Your task to perform on an android device: turn on notifications settings in the gmail app Image 0: 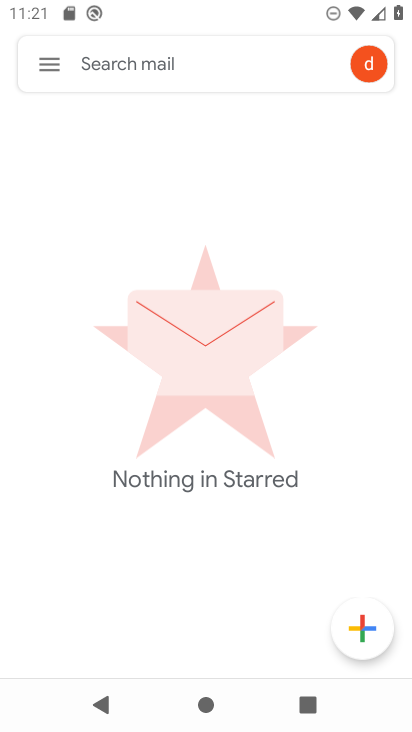
Step 0: click (51, 60)
Your task to perform on an android device: turn on notifications settings in the gmail app Image 1: 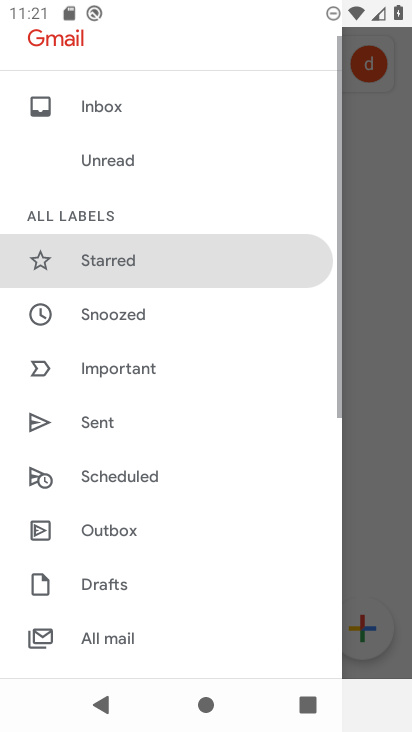
Step 1: drag from (186, 488) to (276, 104)
Your task to perform on an android device: turn on notifications settings in the gmail app Image 2: 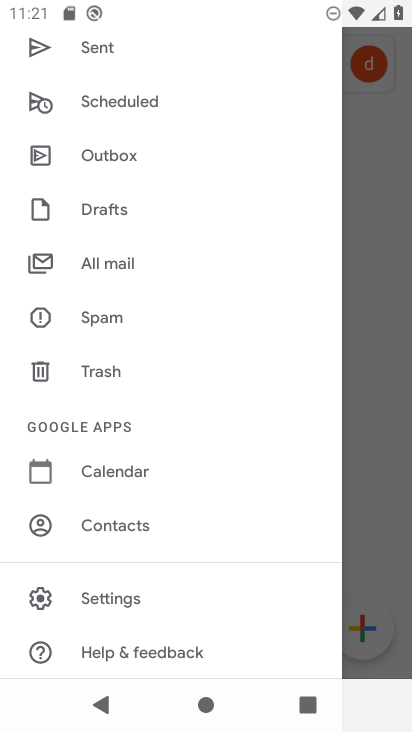
Step 2: click (110, 602)
Your task to perform on an android device: turn on notifications settings in the gmail app Image 3: 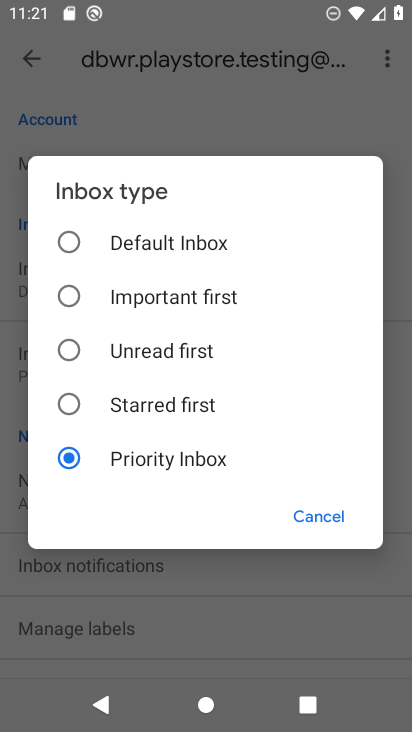
Step 3: click (331, 523)
Your task to perform on an android device: turn on notifications settings in the gmail app Image 4: 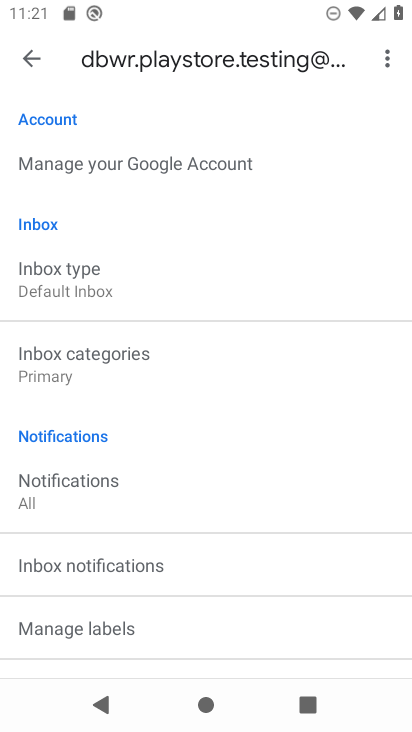
Step 4: drag from (325, 517) to (384, 184)
Your task to perform on an android device: turn on notifications settings in the gmail app Image 5: 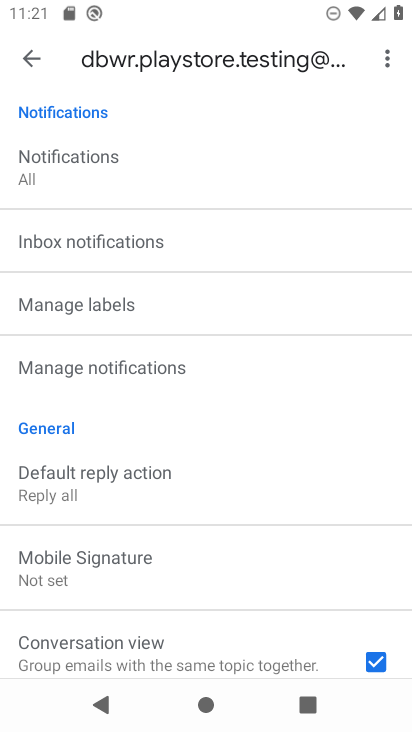
Step 5: drag from (272, 527) to (344, 268)
Your task to perform on an android device: turn on notifications settings in the gmail app Image 6: 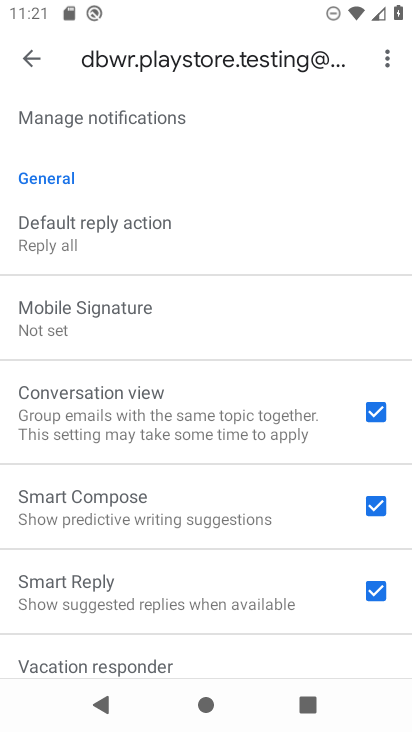
Step 6: drag from (317, 234) to (236, 500)
Your task to perform on an android device: turn on notifications settings in the gmail app Image 7: 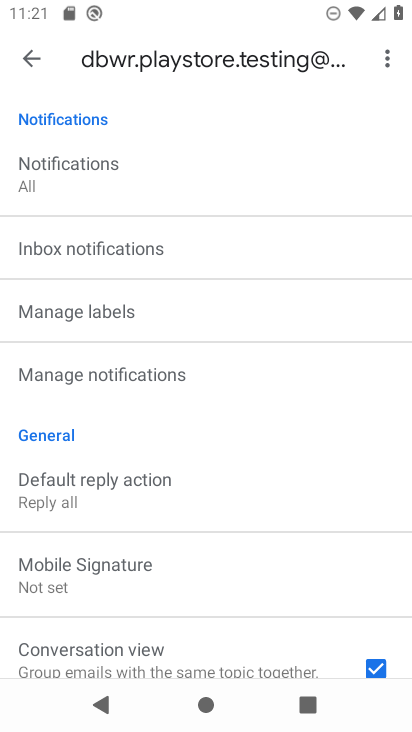
Step 7: click (114, 364)
Your task to perform on an android device: turn on notifications settings in the gmail app Image 8: 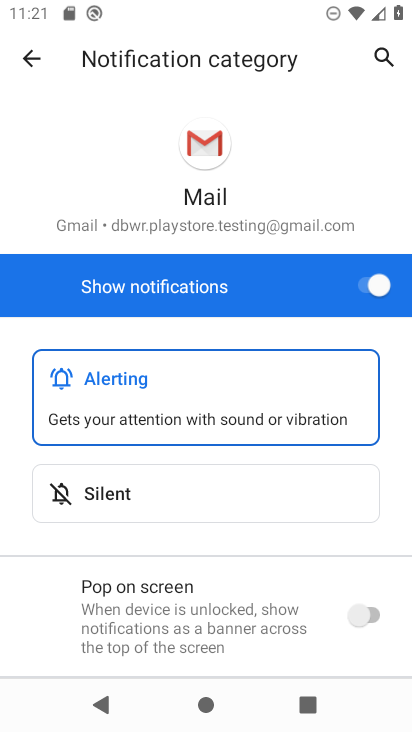
Step 8: task complete